Your task to perform on an android device: show emergency info Image 0: 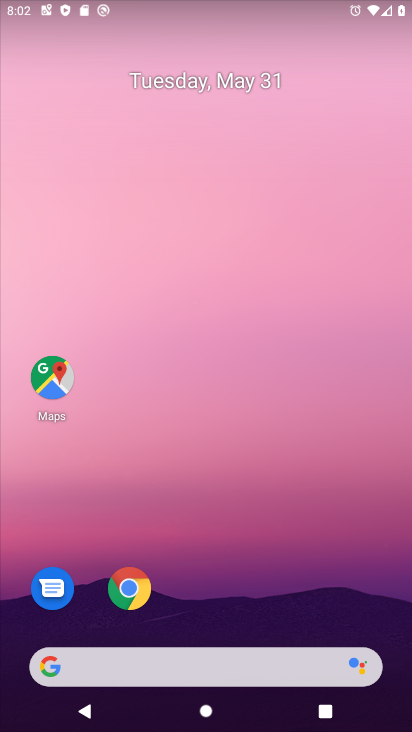
Step 0: drag from (218, 625) to (307, 22)
Your task to perform on an android device: show emergency info Image 1: 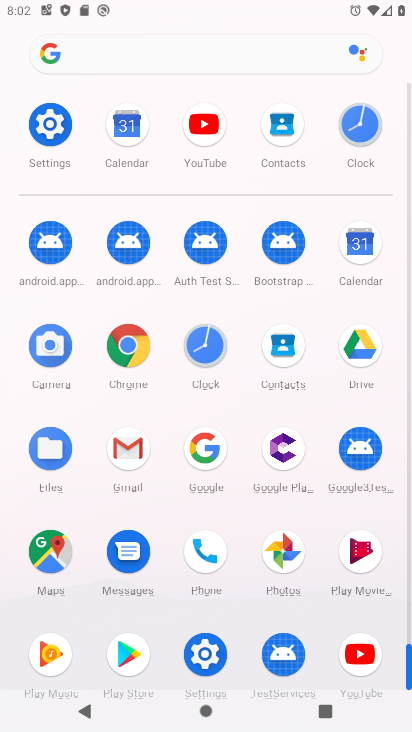
Step 1: click (60, 135)
Your task to perform on an android device: show emergency info Image 2: 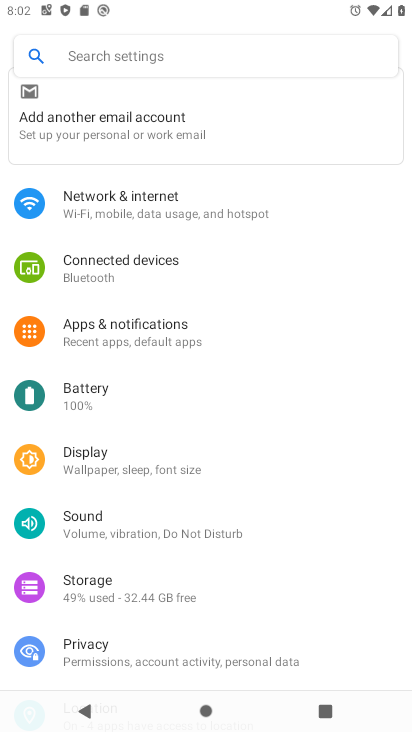
Step 2: drag from (189, 601) to (234, 5)
Your task to perform on an android device: show emergency info Image 3: 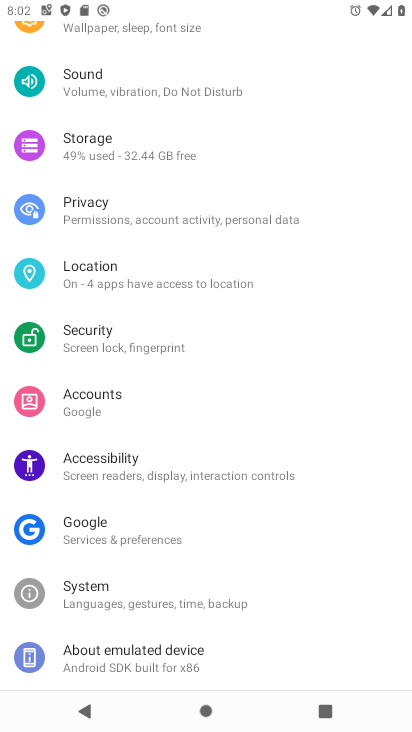
Step 3: click (142, 657)
Your task to perform on an android device: show emergency info Image 4: 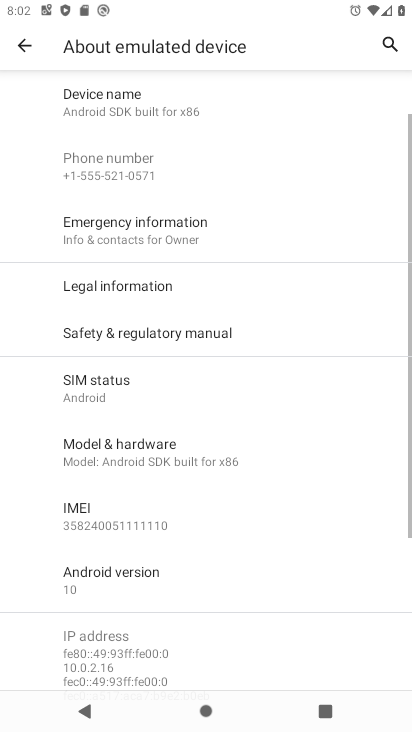
Step 4: click (158, 227)
Your task to perform on an android device: show emergency info Image 5: 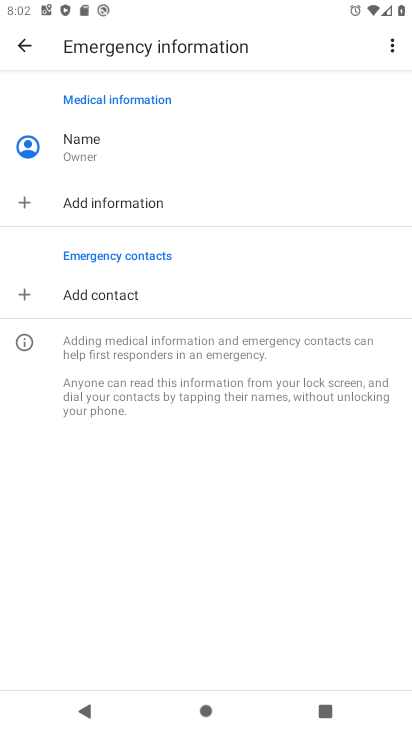
Step 5: task complete